Your task to perform on an android device: open app "LiveIn - Share Your Moment" Image 0: 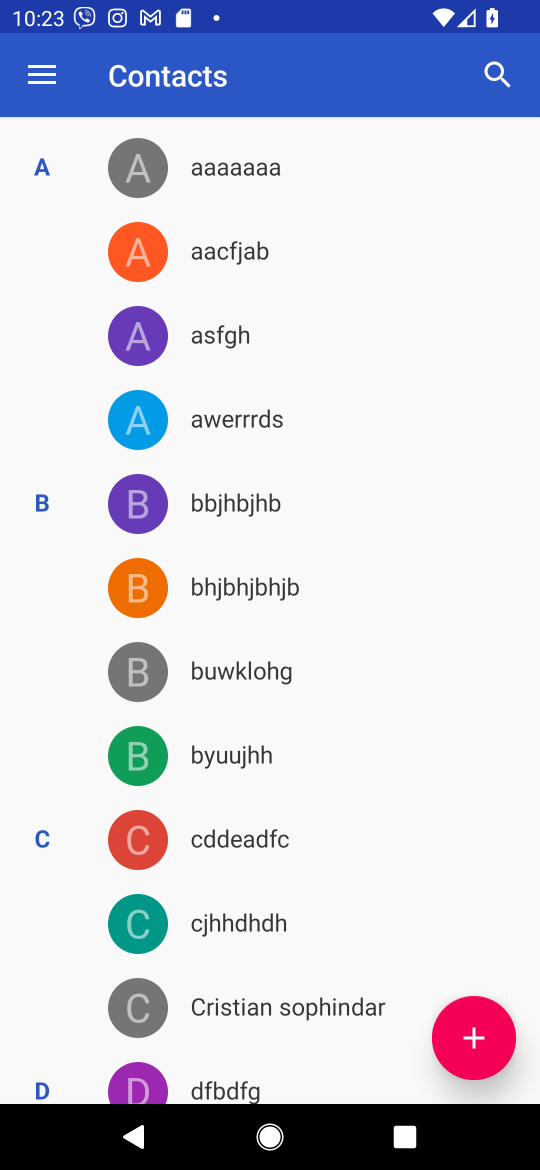
Step 0: press home button
Your task to perform on an android device: open app "LiveIn - Share Your Moment" Image 1: 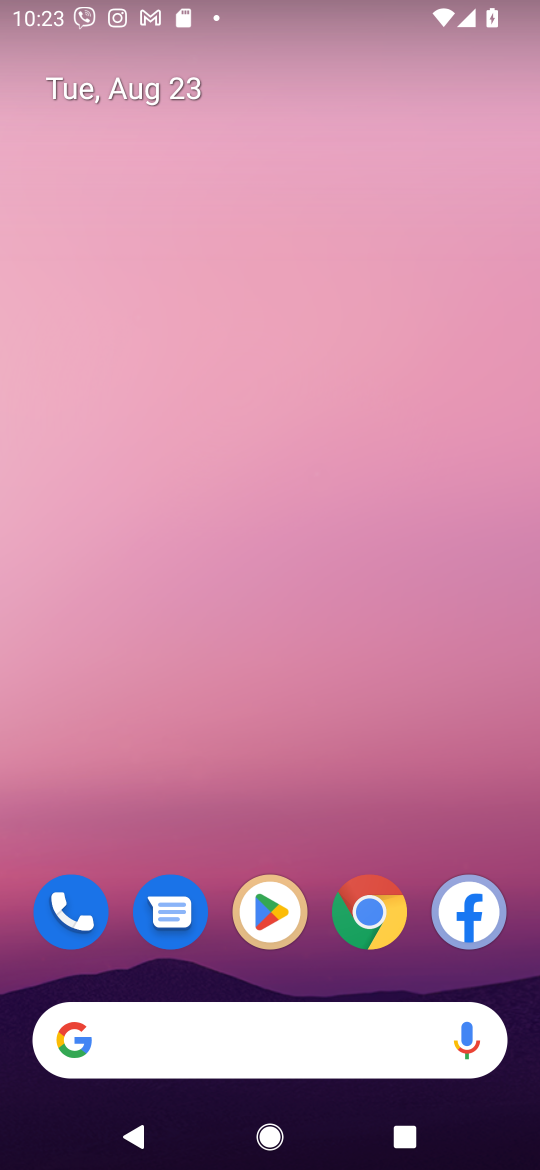
Step 1: click (275, 923)
Your task to perform on an android device: open app "LiveIn - Share Your Moment" Image 2: 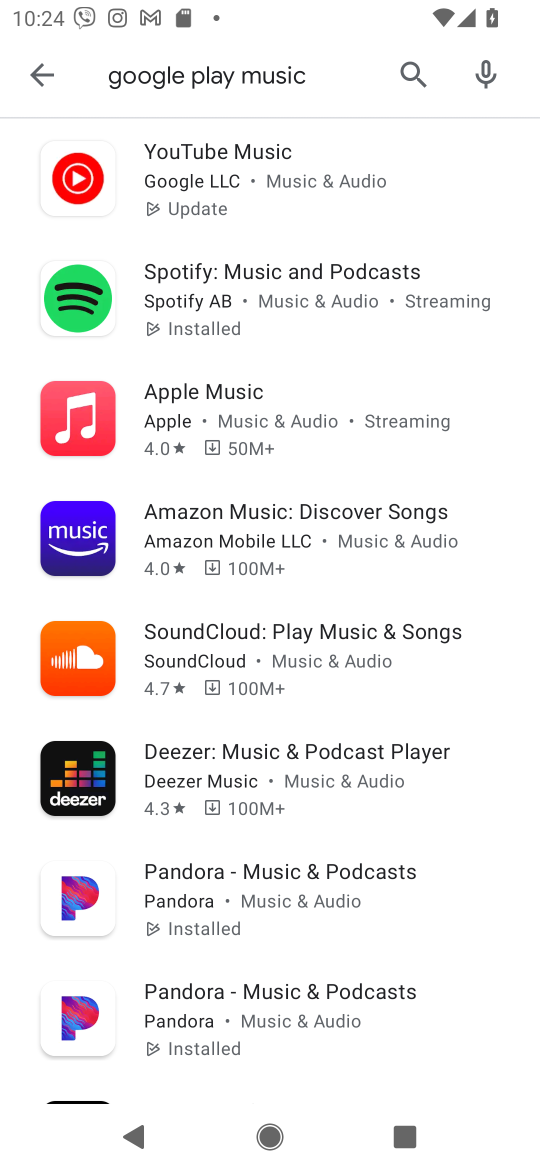
Step 2: click (406, 69)
Your task to perform on an android device: open app "LiveIn - Share Your Moment" Image 3: 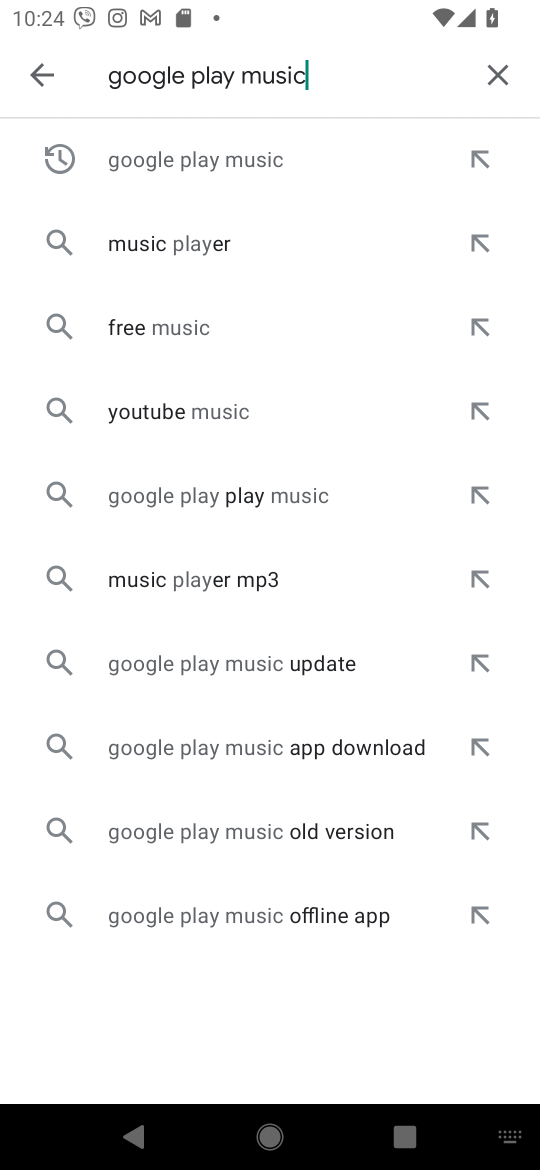
Step 3: click (499, 71)
Your task to perform on an android device: open app "LiveIn - Share Your Moment" Image 4: 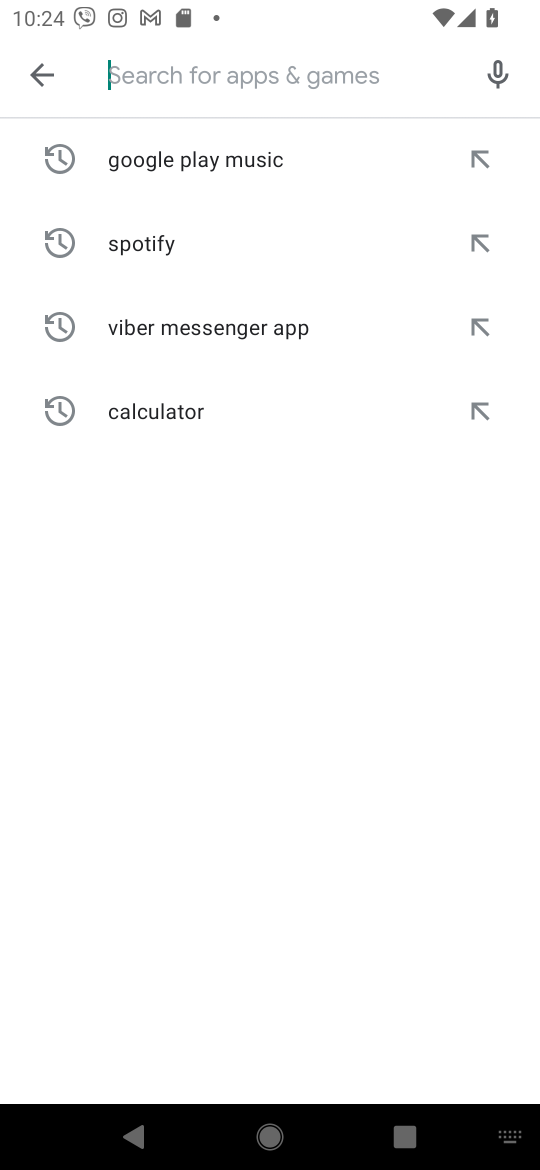
Step 4: type "LiveIn - Share Your Moment"
Your task to perform on an android device: open app "LiveIn - Share Your Moment" Image 5: 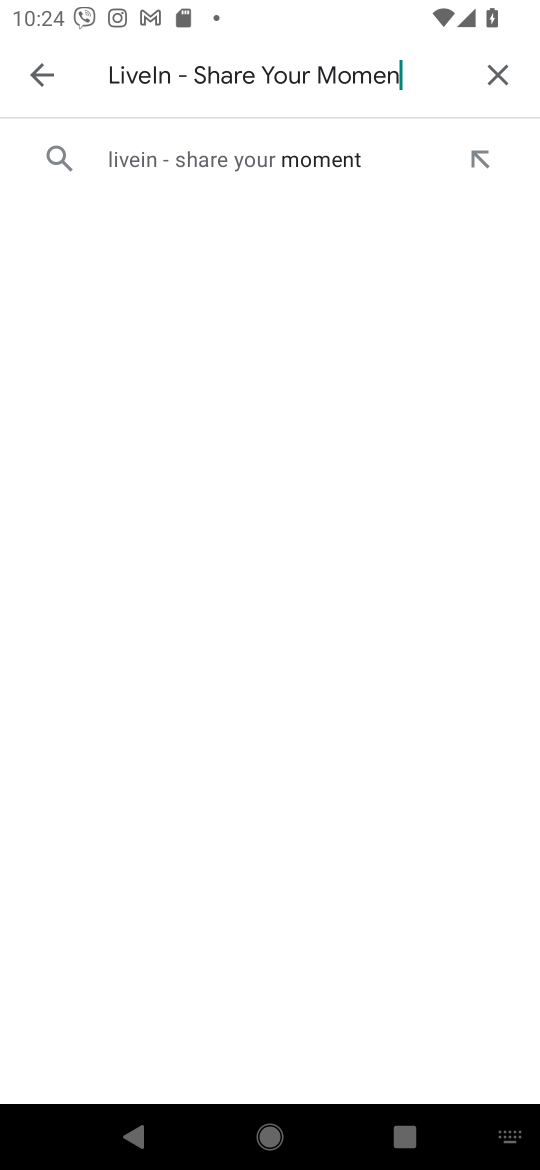
Step 5: type ""
Your task to perform on an android device: open app "LiveIn - Share Your Moment" Image 6: 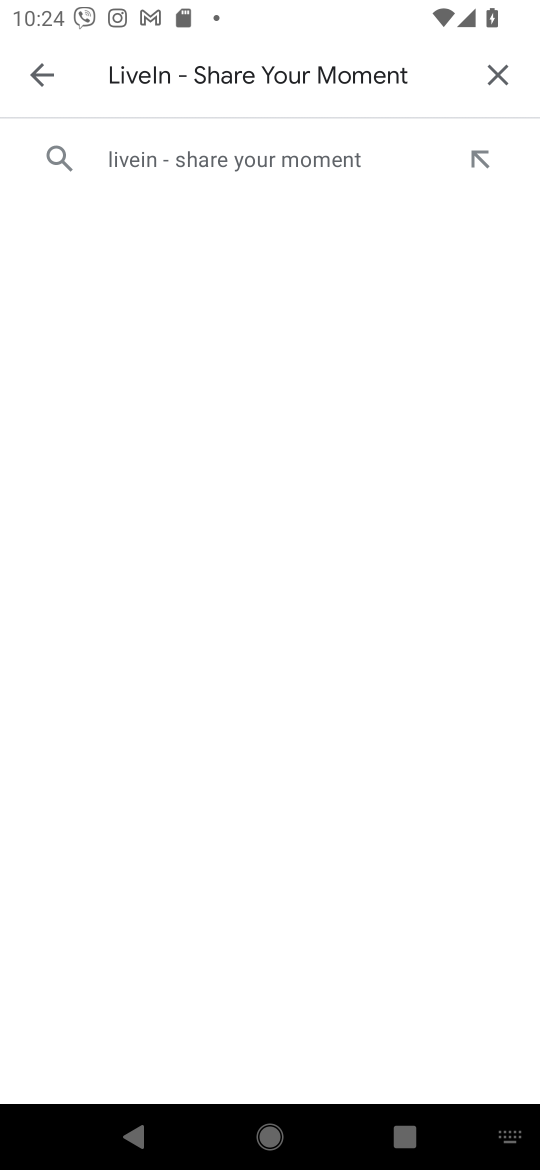
Step 6: click (236, 160)
Your task to perform on an android device: open app "LiveIn - Share Your Moment" Image 7: 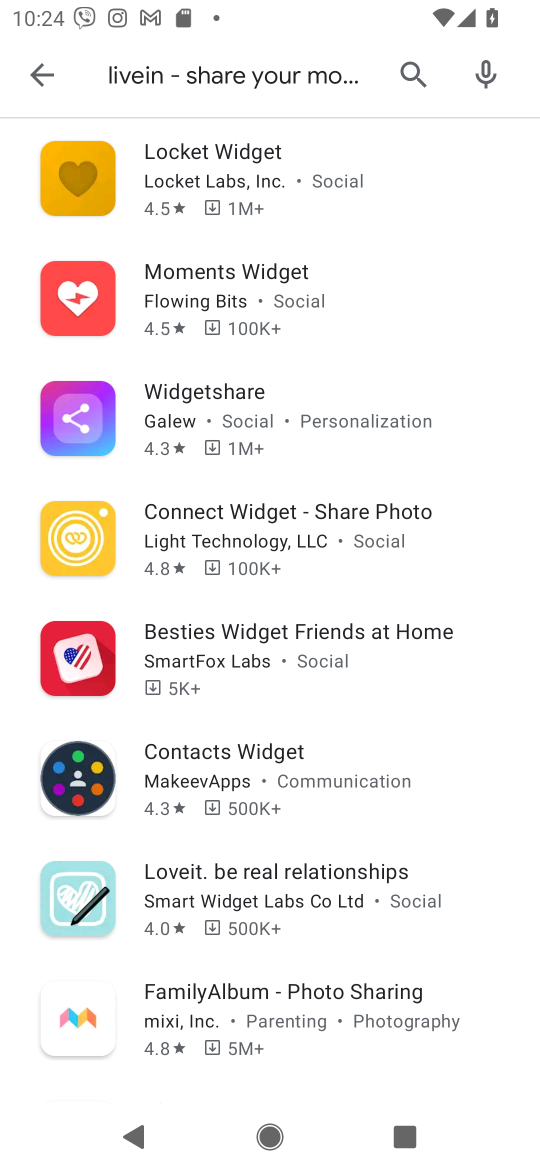
Step 7: task complete